Your task to perform on an android device: open a new tab in the chrome app Image 0: 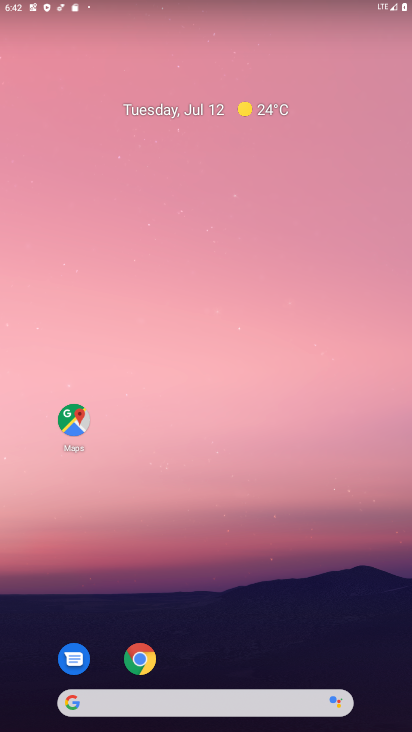
Step 0: drag from (339, 679) to (224, 1)
Your task to perform on an android device: open a new tab in the chrome app Image 1: 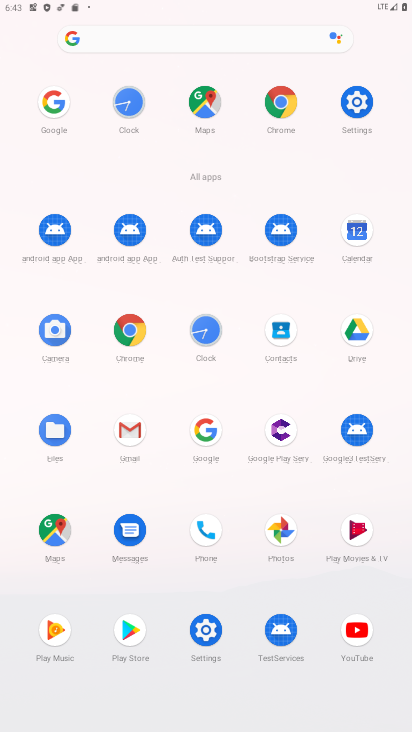
Step 1: click (267, 109)
Your task to perform on an android device: open a new tab in the chrome app Image 2: 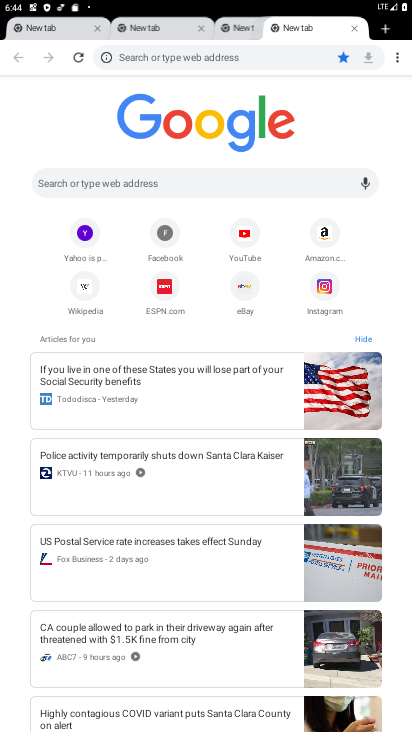
Step 2: click (381, 29)
Your task to perform on an android device: open a new tab in the chrome app Image 3: 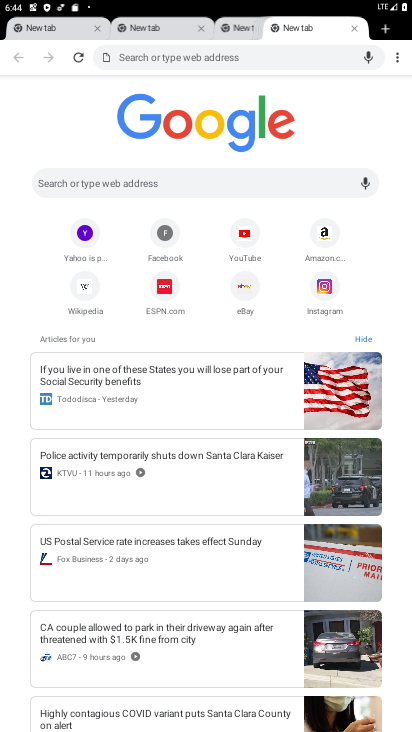
Step 3: task complete